Your task to perform on an android device: change text size in settings app Image 0: 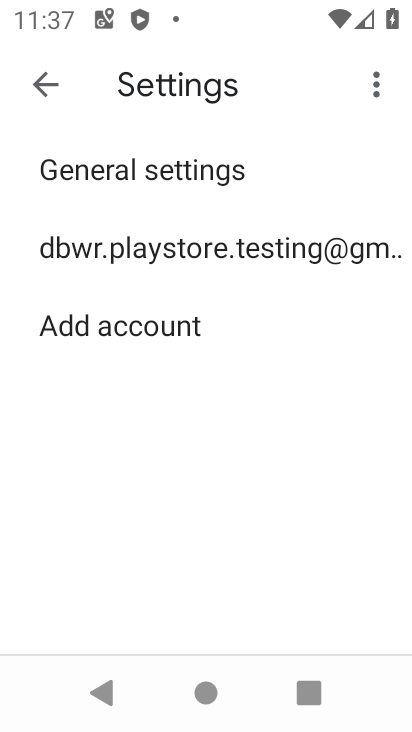
Step 0: press home button
Your task to perform on an android device: change text size in settings app Image 1: 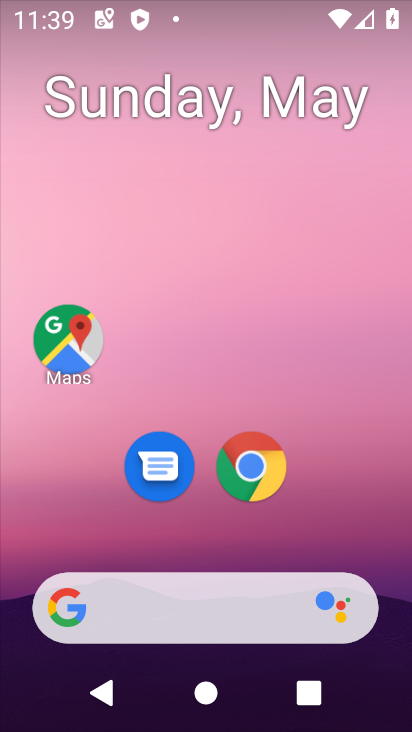
Step 1: drag from (346, 541) to (251, 59)
Your task to perform on an android device: change text size in settings app Image 2: 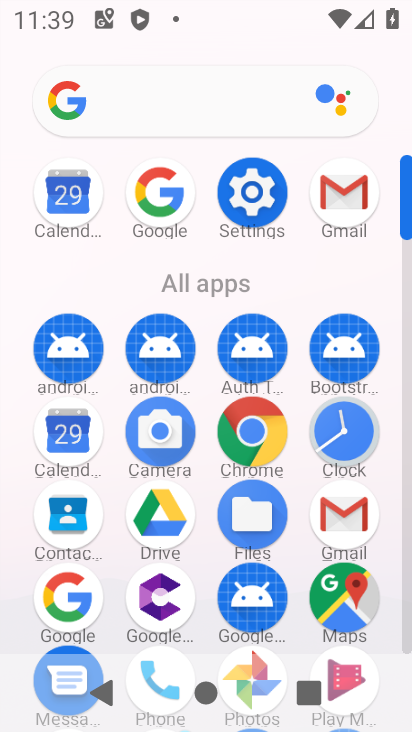
Step 2: click (260, 200)
Your task to perform on an android device: change text size in settings app Image 3: 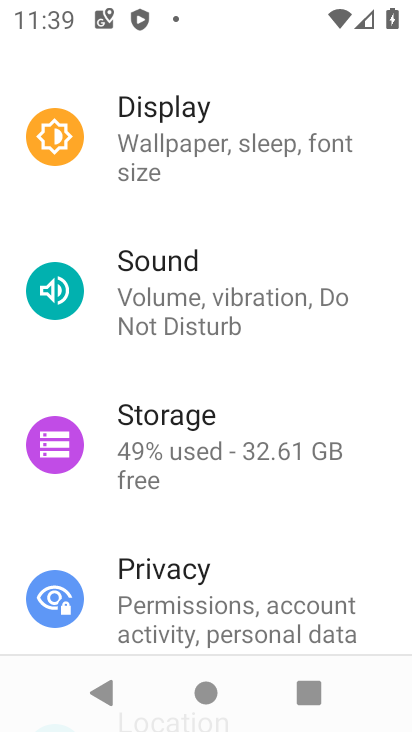
Step 3: click (248, 174)
Your task to perform on an android device: change text size in settings app Image 4: 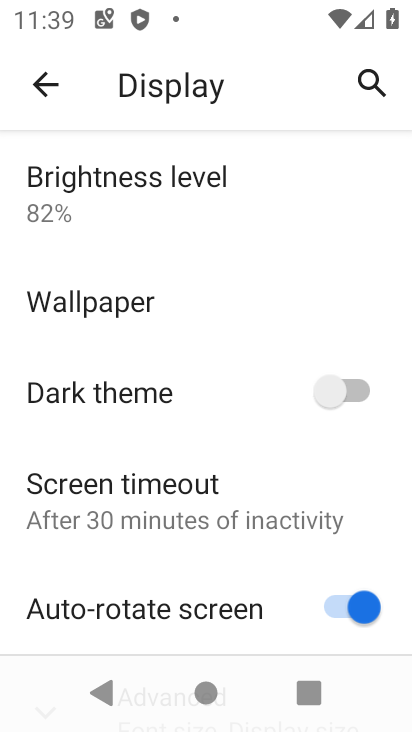
Step 4: drag from (165, 211) to (119, 553)
Your task to perform on an android device: change text size in settings app Image 5: 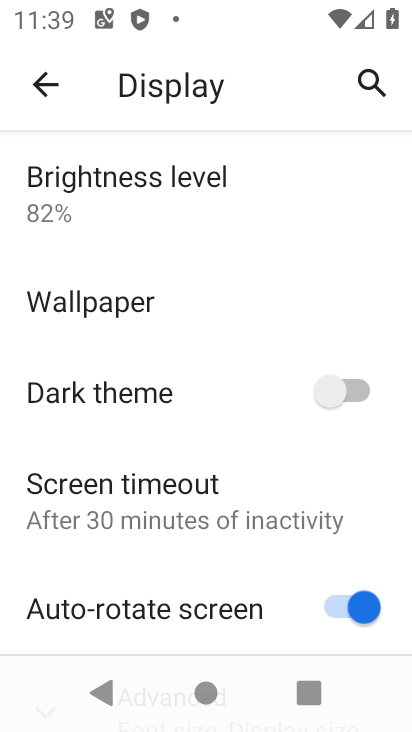
Step 5: drag from (123, 544) to (148, 51)
Your task to perform on an android device: change text size in settings app Image 6: 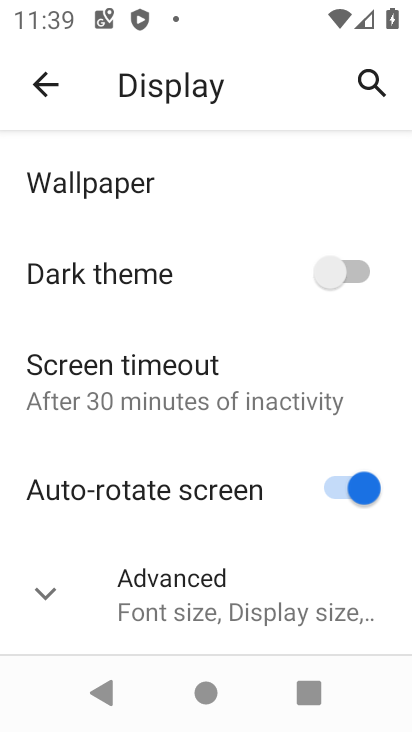
Step 6: click (102, 595)
Your task to perform on an android device: change text size in settings app Image 7: 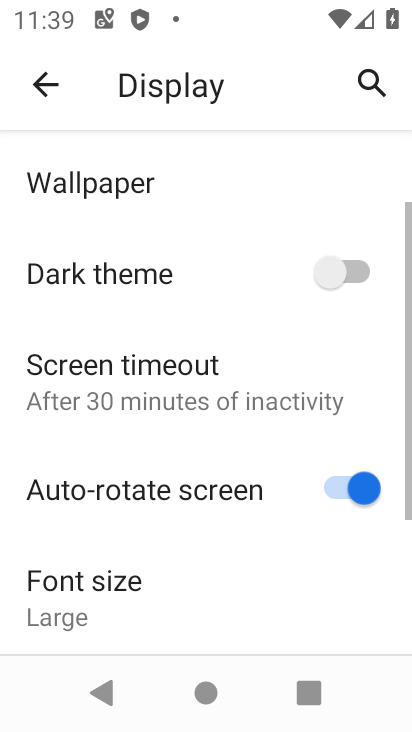
Step 7: drag from (138, 607) to (177, 245)
Your task to perform on an android device: change text size in settings app Image 8: 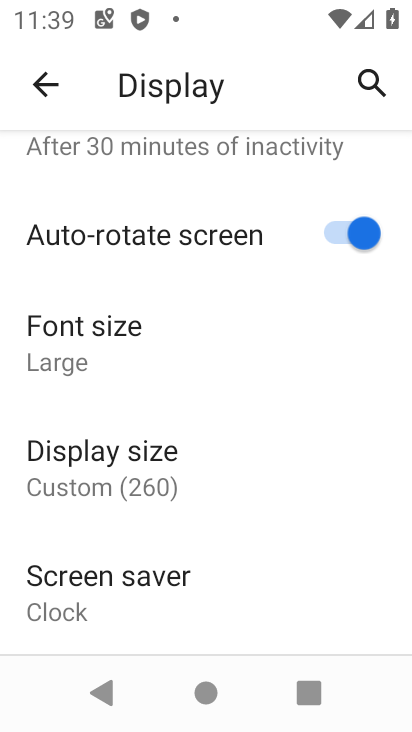
Step 8: click (116, 358)
Your task to perform on an android device: change text size in settings app Image 9: 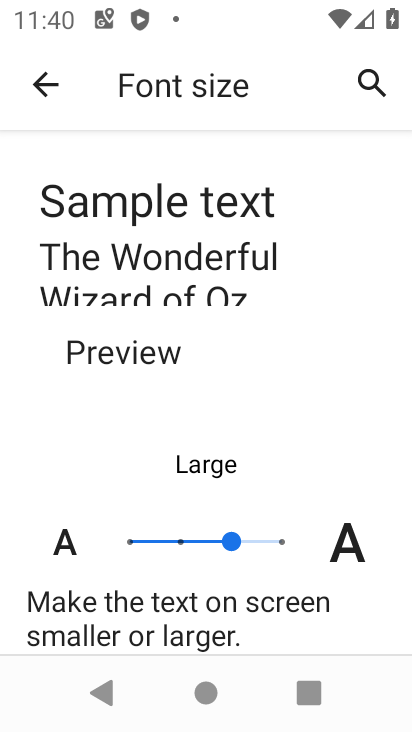
Step 9: click (179, 539)
Your task to perform on an android device: change text size in settings app Image 10: 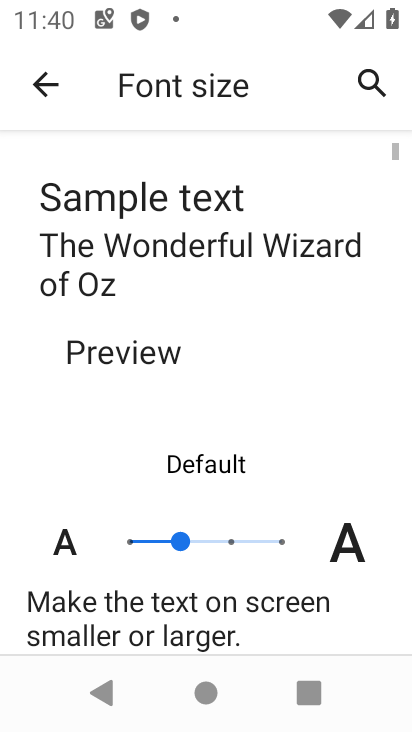
Step 10: task complete